Your task to perform on an android device: uninstall "Microsoft Authenticator" Image 0: 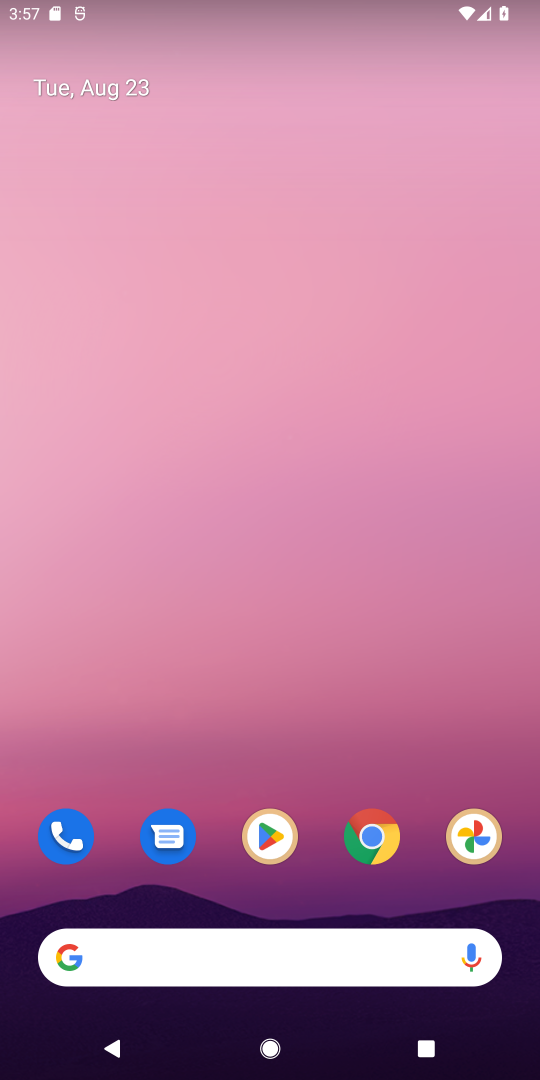
Step 0: click (270, 841)
Your task to perform on an android device: uninstall "Microsoft Authenticator" Image 1: 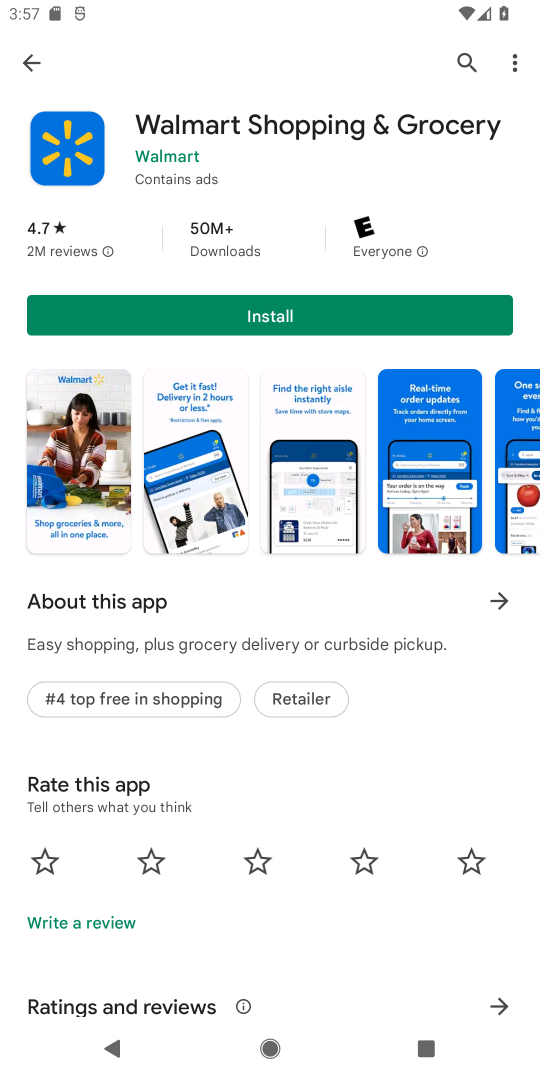
Step 1: click (462, 63)
Your task to perform on an android device: uninstall "Microsoft Authenticator" Image 2: 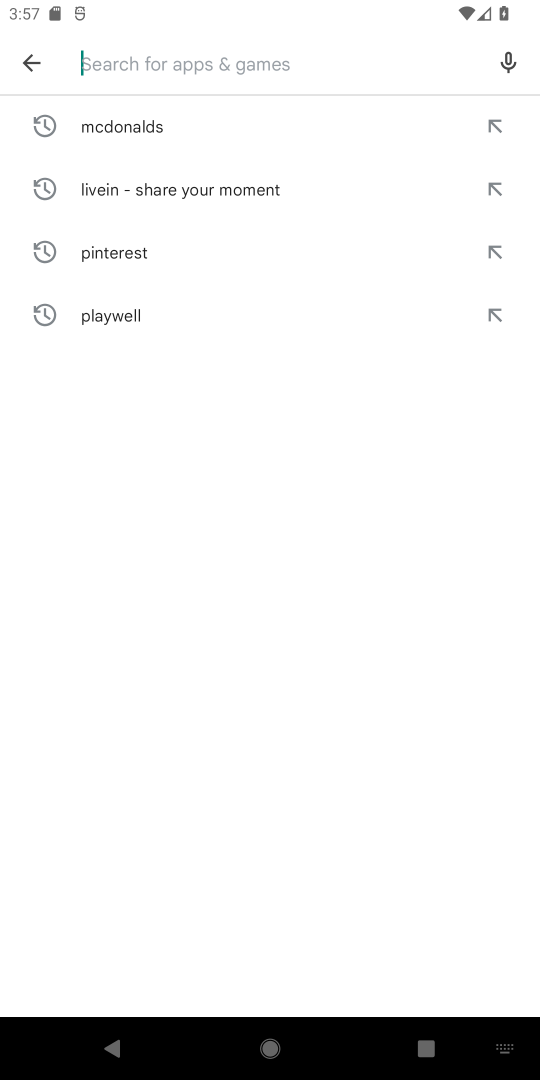
Step 2: type "Microsoft Authenticato"
Your task to perform on an android device: uninstall "Microsoft Authenticator" Image 3: 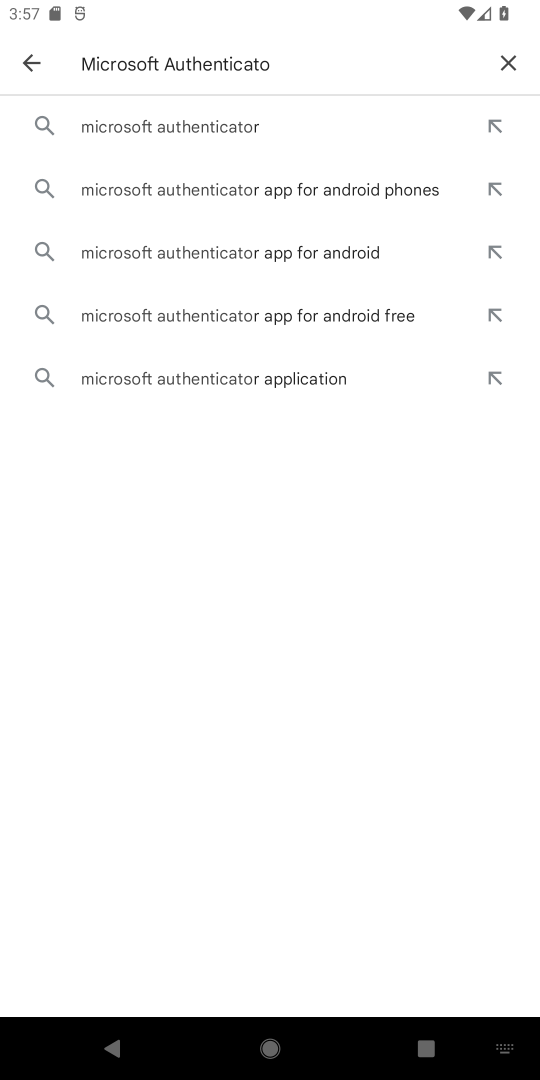
Step 3: click (180, 121)
Your task to perform on an android device: uninstall "Microsoft Authenticator" Image 4: 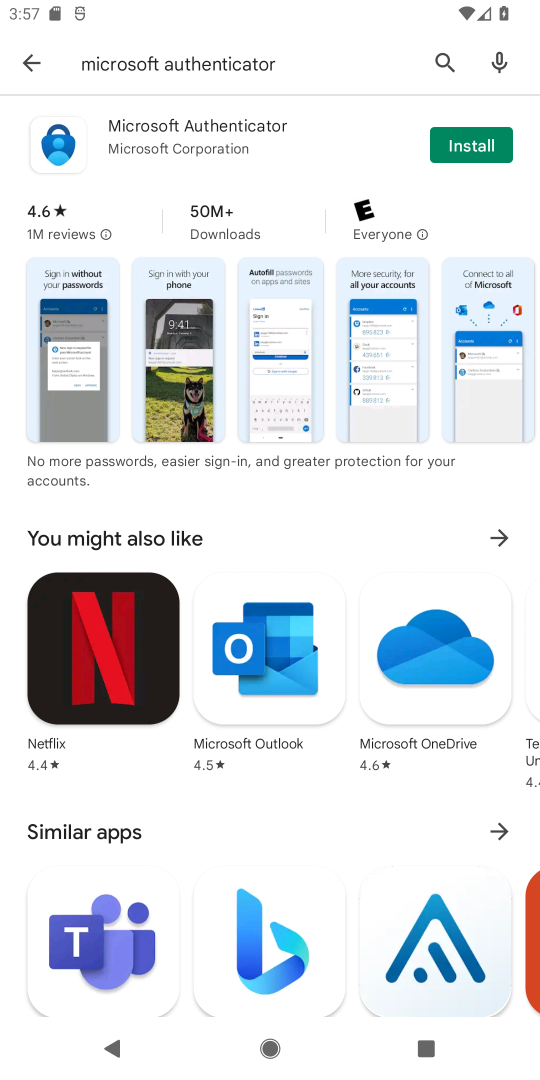
Step 4: click (202, 136)
Your task to perform on an android device: uninstall "Microsoft Authenticator" Image 5: 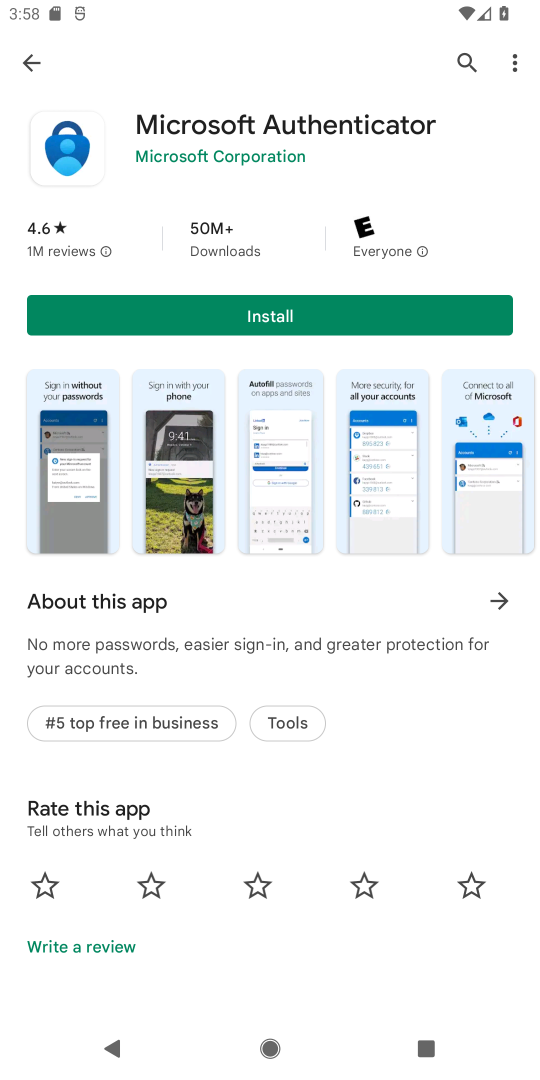
Step 5: task complete